Your task to perform on an android device: Search for Italian restaurants on Maps Image 0: 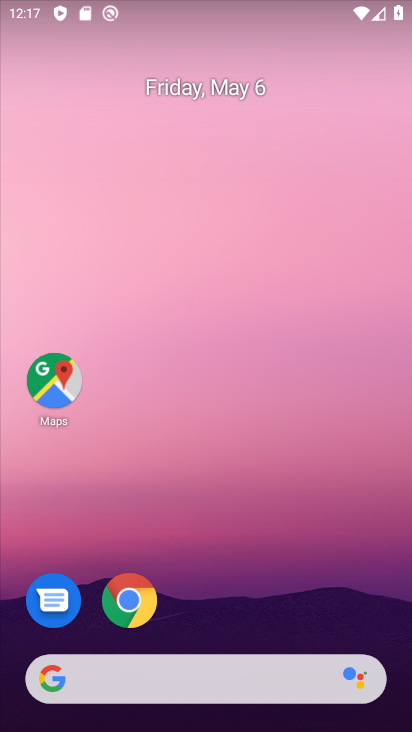
Step 0: drag from (305, 605) to (366, 100)
Your task to perform on an android device: Search for Italian restaurants on Maps Image 1: 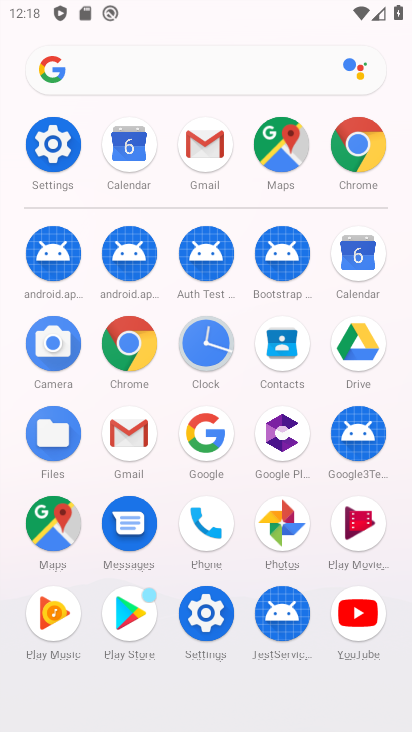
Step 1: click (269, 150)
Your task to perform on an android device: Search for Italian restaurants on Maps Image 2: 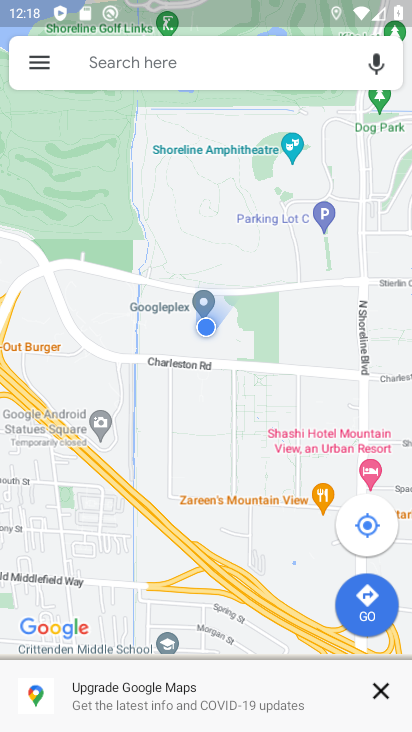
Step 2: click (123, 74)
Your task to perform on an android device: Search for Italian restaurants on Maps Image 3: 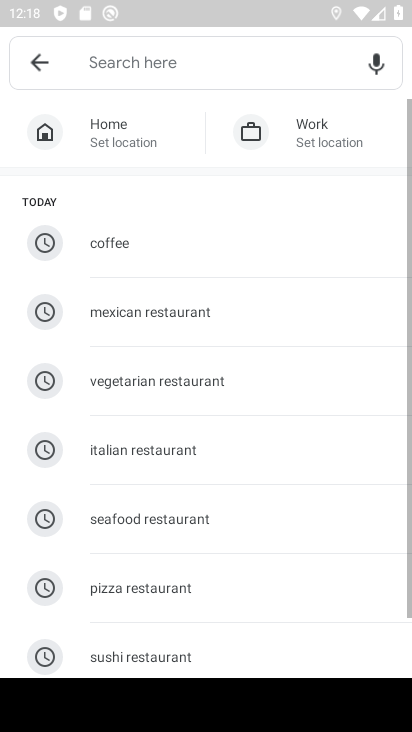
Step 3: click (191, 452)
Your task to perform on an android device: Search for Italian restaurants on Maps Image 4: 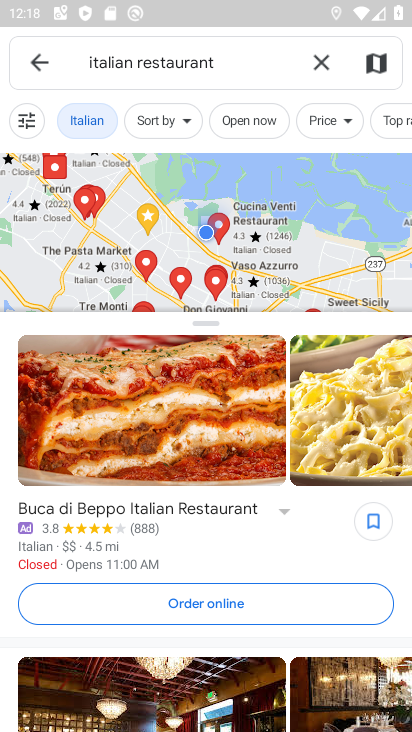
Step 4: task complete